Your task to perform on an android device: Do I have any events this weekend? Image 0: 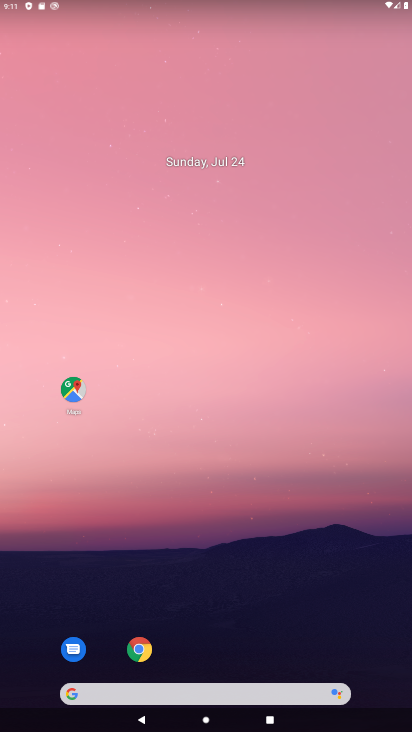
Step 0: drag from (207, 449) to (224, 255)
Your task to perform on an android device: Do I have any events this weekend? Image 1: 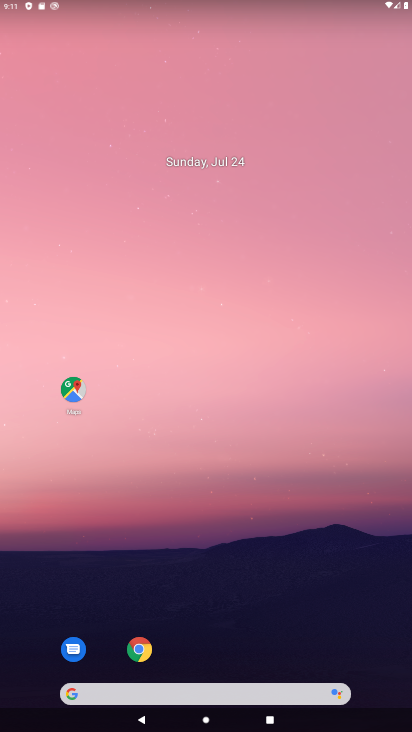
Step 1: drag from (166, 361) to (168, 259)
Your task to perform on an android device: Do I have any events this weekend? Image 2: 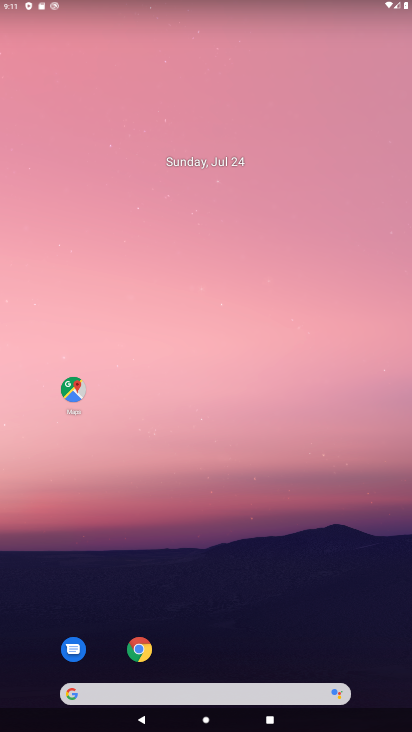
Step 2: drag from (195, 591) to (195, 96)
Your task to perform on an android device: Do I have any events this weekend? Image 3: 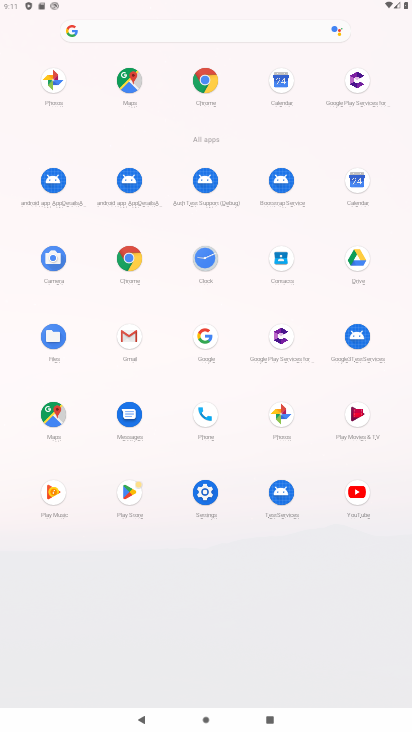
Step 3: click (357, 190)
Your task to perform on an android device: Do I have any events this weekend? Image 4: 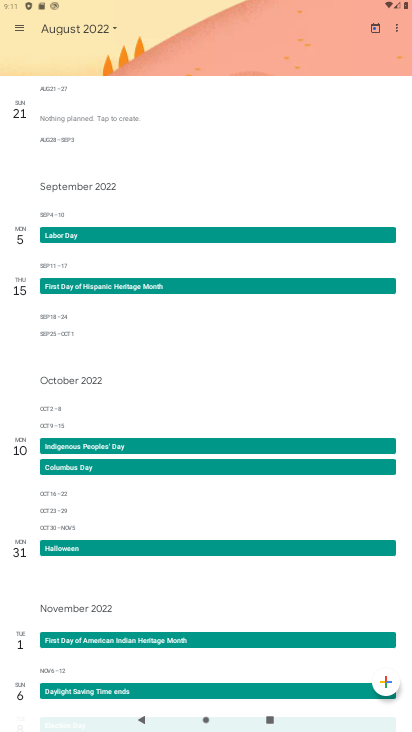
Step 4: click (62, 33)
Your task to perform on an android device: Do I have any events this weekend? Image 5: 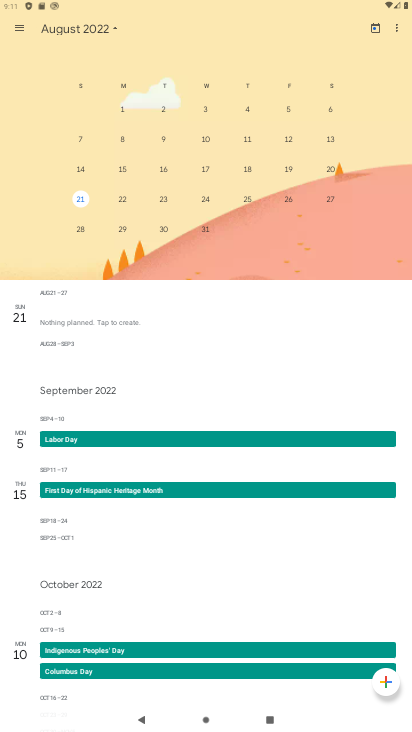
Step 5: drag from (411, 148) to (346, 143)
Your task to perform on an android device: Do I have any events this weekend? Image 6: 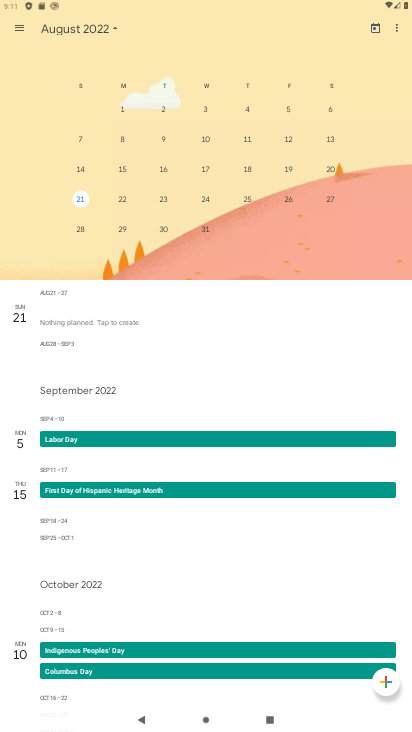
Step 6: click (404, 145)
Your task to perform on an android device: Do I have any events this weekend? Image 7: 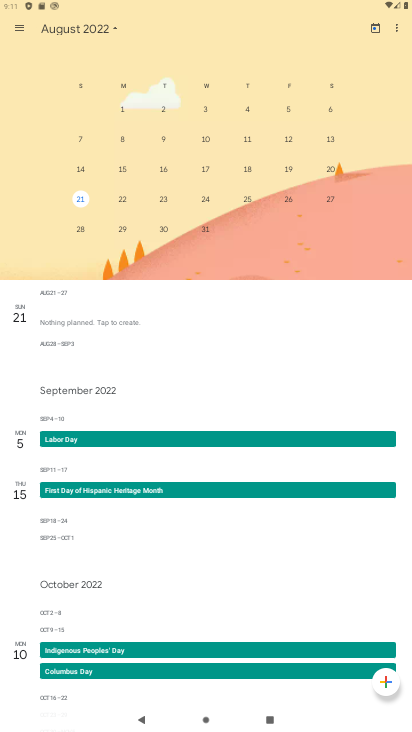
Step 7: drag from (129, 159) to (412, 128)
Your task to perform on an android device: Do I have any events this weekend? Image 8: 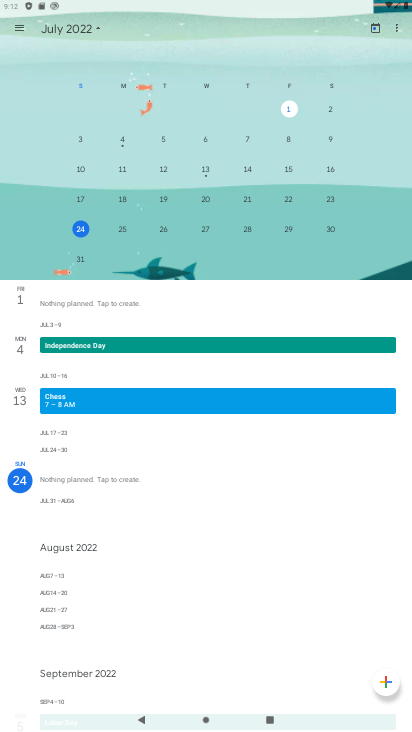
Step 8: click (14, 21)
Your task to perform on an android device: Do I have any events this weekend? Image 9: 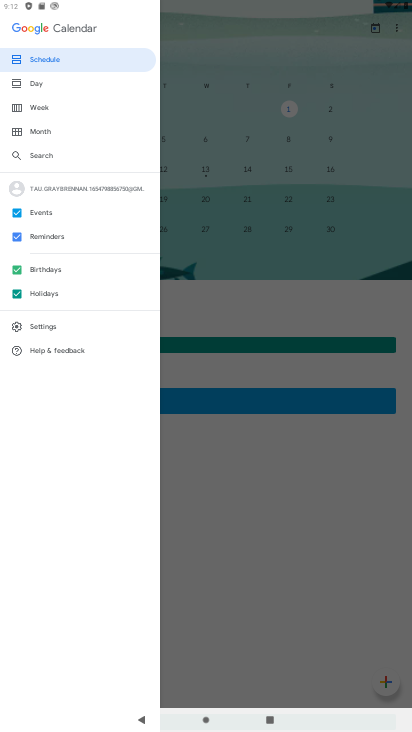
Step 9: click (45, 108)
Your task to perform on an android device: Do I have any events this weekend? Image 10: 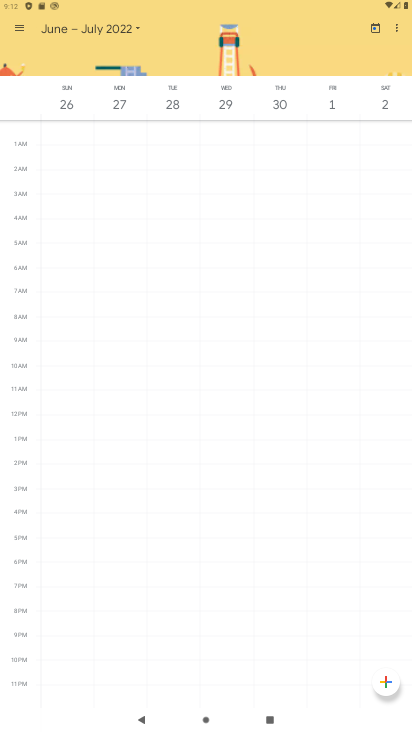
Step 10: task complete